Your task to perform on an android device: Open Chrome and go to settings Image 0: 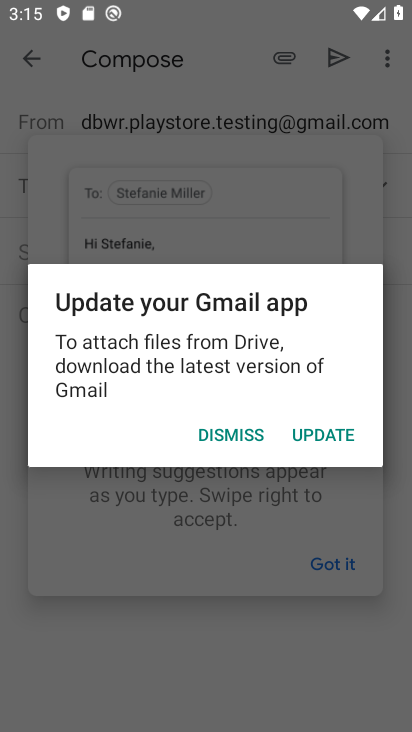
Step 0: press home button
Your task to perform on an android device: Open Chrome and go to settings Image 1: 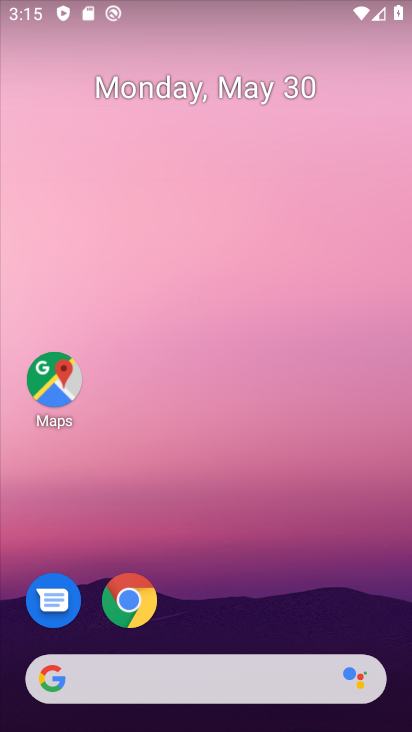
Step 1: drag from (276, 598) to (242, 84)
Your task to perform on an android device: Open Chrome and go to settings Image 2: 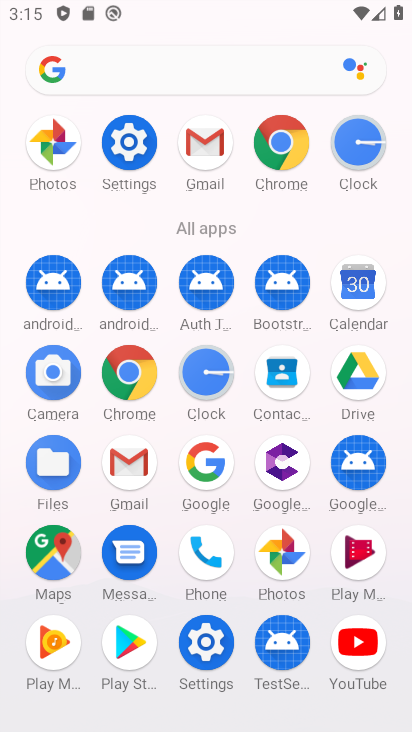
Step 2: click (271, 150)
Your task to perform on an android device: Open Chrome and go to settings Image 3: 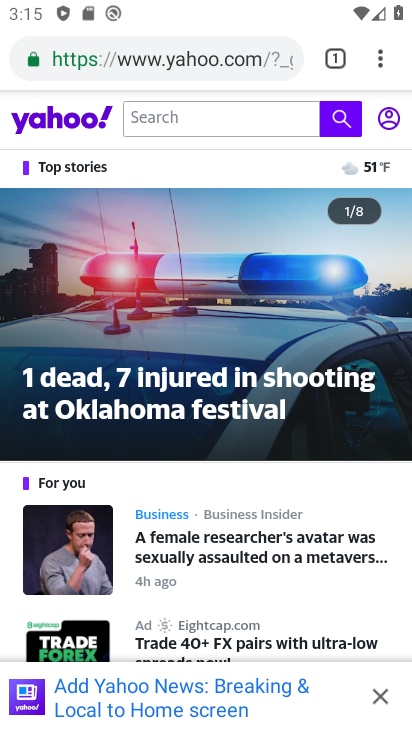
Step 3: click (368, 63)
Your task to perform on an android device: Open Chrome and go to settings Image 4: 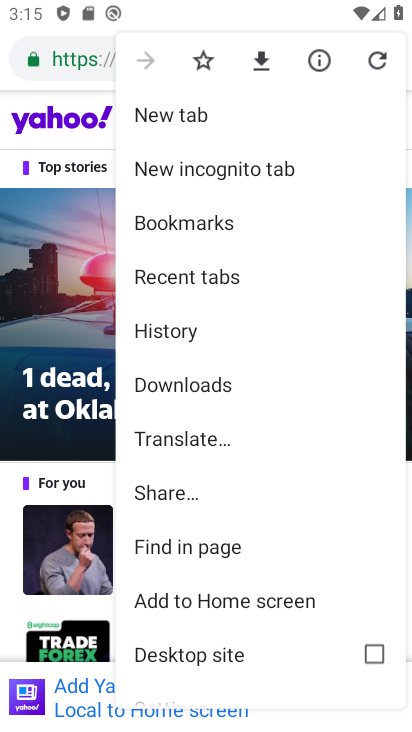
Step 4: drag from (241, 628) to (257, 260)
Your task to perform on an android device: Open Chrome and go to settings Image 5: 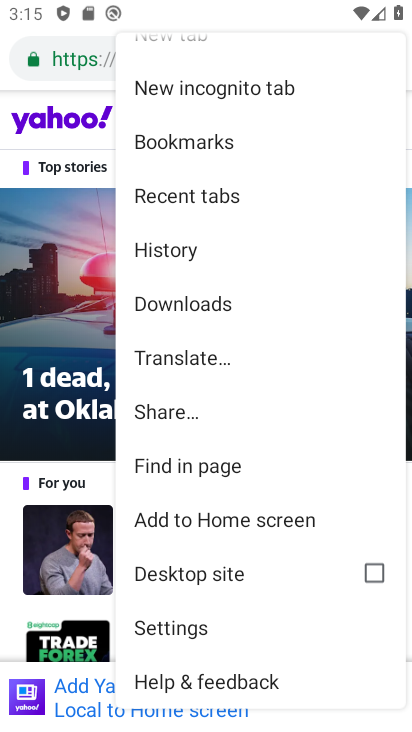
Step 5: click (204, 630)
Your task to perform on an android device: Open Chrome and go to settings Image 6: 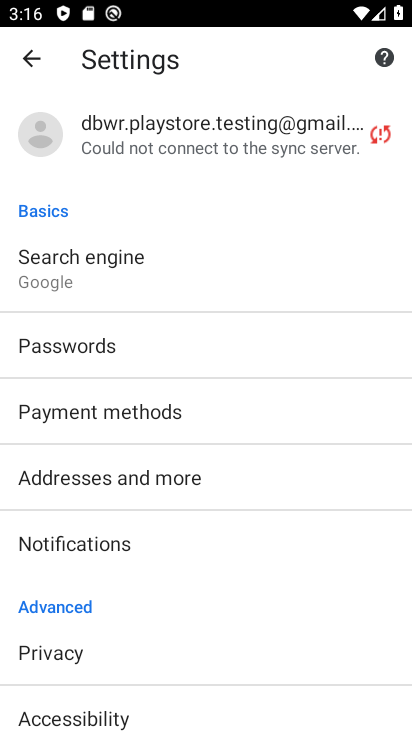
Step 6: task complete